Your task to perform on an android device: add a contact in the contacts app Image 0: 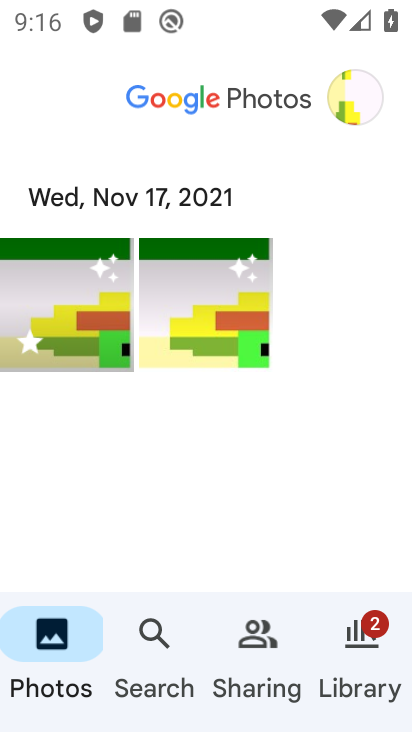
Step 0: press back button
Your task to perform on an android device: add a contact in the contacts app Image 1: 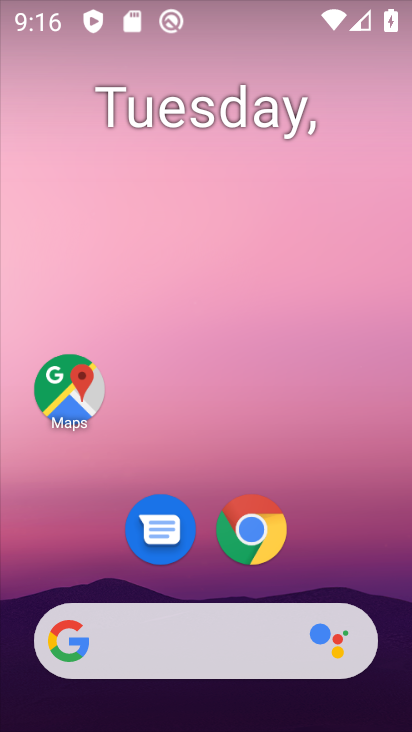
Step 1: drag from (350, 593) to (394, 68)
Your task to perform on an android device: add a contact in the contacts app Image 2: 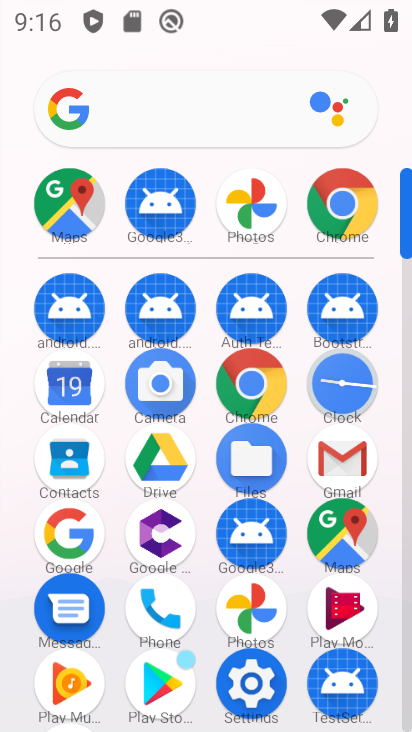
Step 2: click (70, 452)
Your task to perform on an android device: add a contact in the contacts app Image 3: 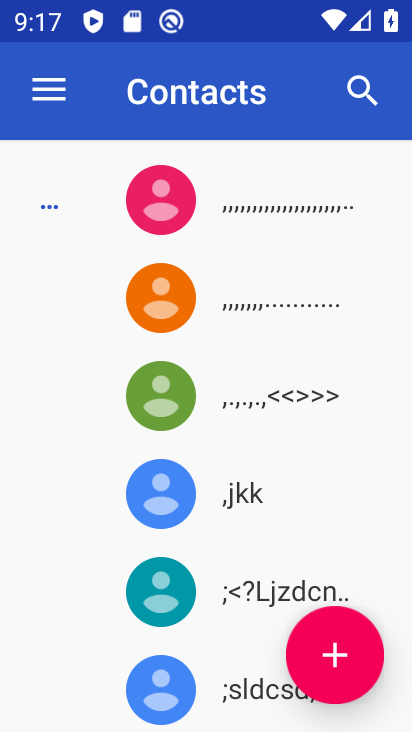
Step 3: click (362, 655)
Your task to perform on an android device: add a contact in the contacts app Image 4: 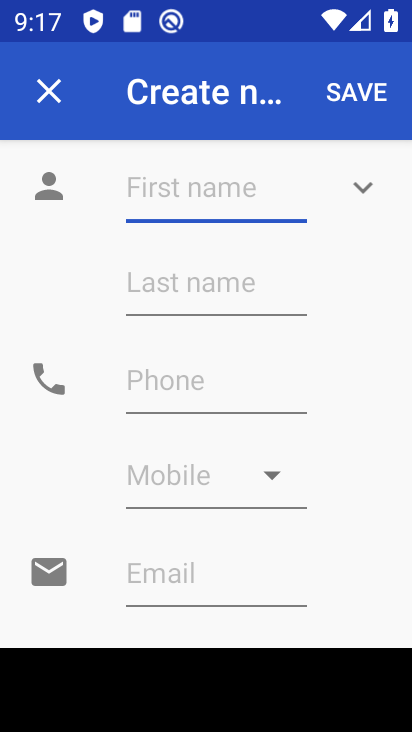
Step 4: type "hhgffgghhh"
Your task to perform on an android device: add a contact in the contacts app Image 5: 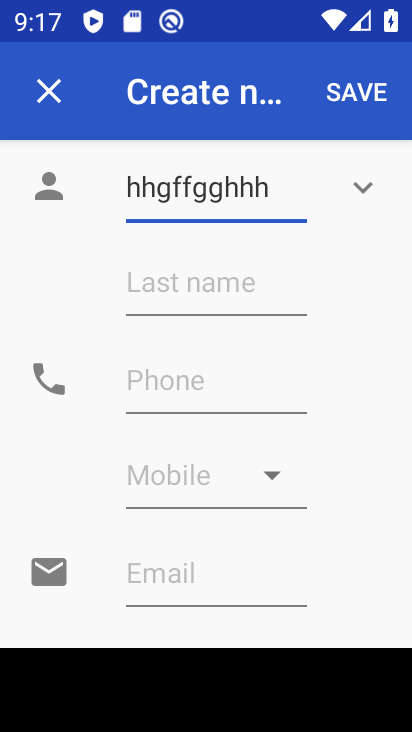
Step 5: click (247, 392)
Your task to perform on an android device: add a contact in the contacts app Image 6: 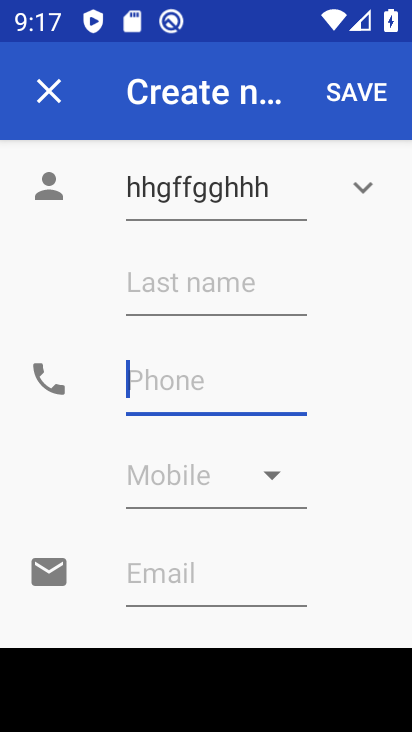
Step 6: type "989789098"
Your task to perform on an android device: add a contact in the contacts app Image 7: 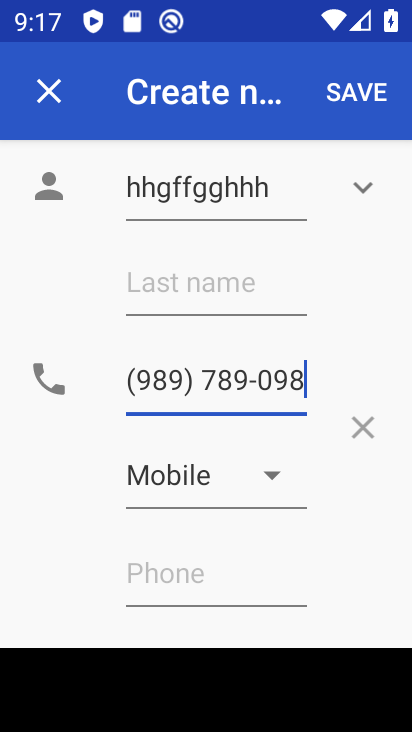
Step 7: click (362, 91)
Your task to perform on an android device: add a contact in the contacts app Image 8: 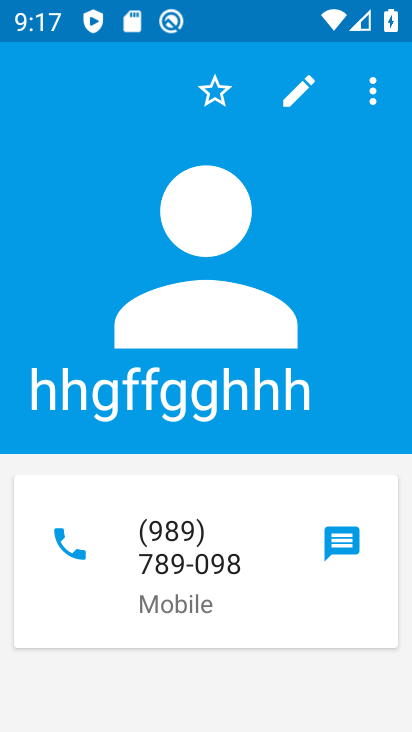
Step 8: task complete